Your task to perform on an android device: Go to ESPN.com Image 0: 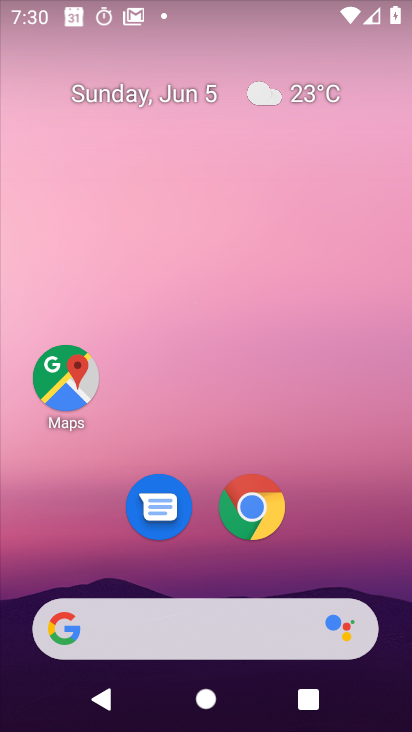
Step 0: drag from (266, 666) to (181, 78)
Your task to perform on an android device: Go to ESPN.com Image 1: 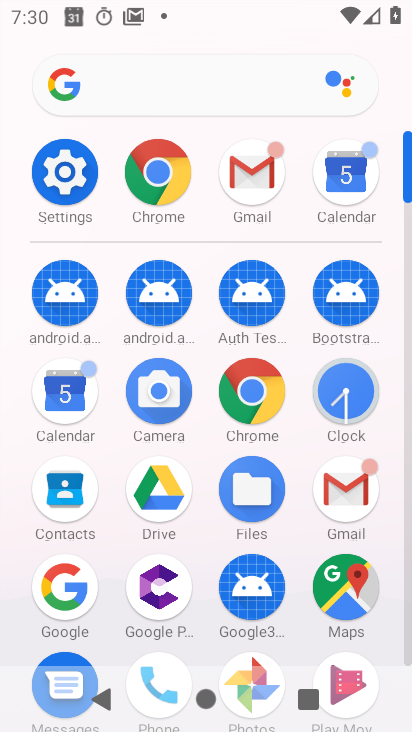
Step 1: click (168, 176)
Your task to perform on an android device: Go to ESPN.com Image 2: 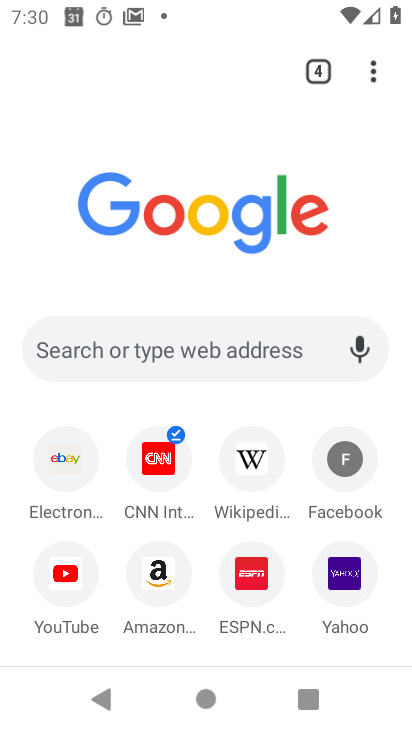
Step 2: click (257, 572)
Your task to perform on an android device: Go to ESPN.com Image 3: 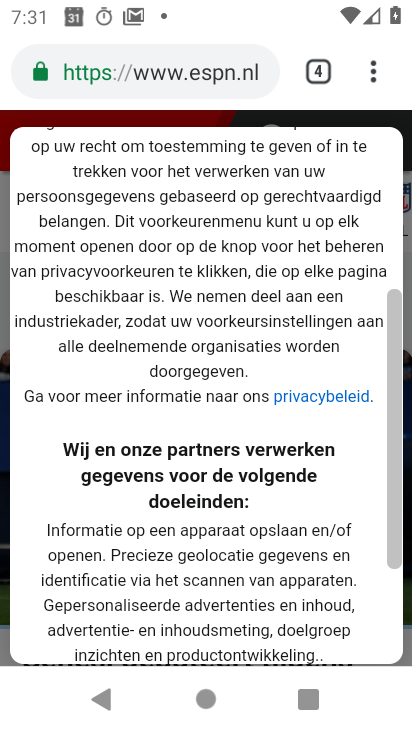
Step 3: drag from (295, 482) to (219, 185)
Your task to perform on an android device: Go to ESPN.com Image 4: 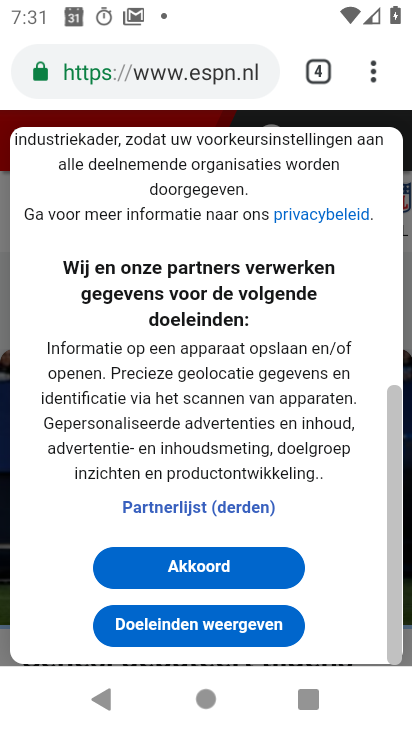
Step 4: click (204, 554)
Your task to perform on an android device: Go to ESPN.com Image 5: 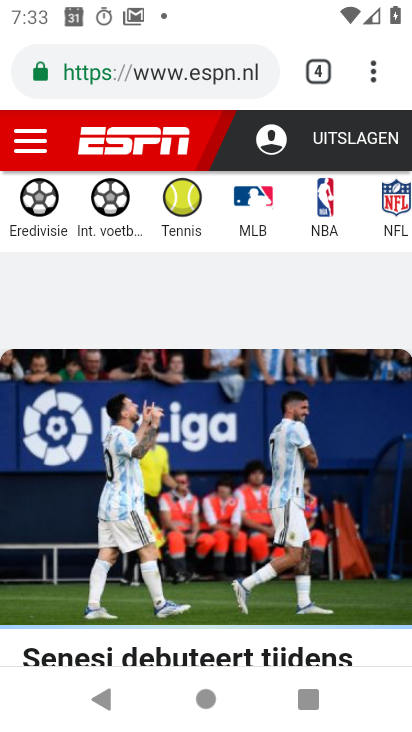
Step 5: task complete